Your task to perform on an android device: What's the latest news in astrophysics? Image 0: 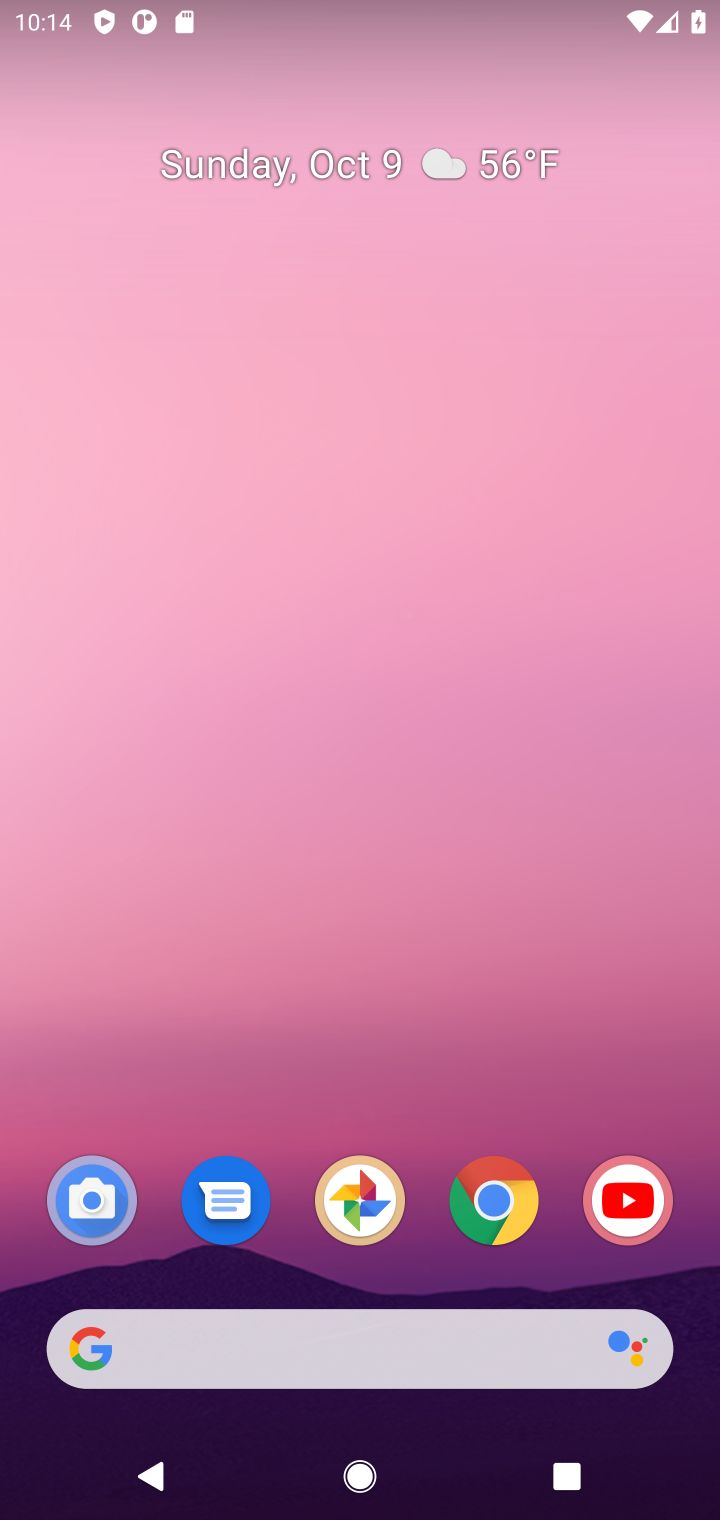
Step 0: click (463, 1195)
Your task to perform on an android device: What's the latest news in astrophysics? Image 1: 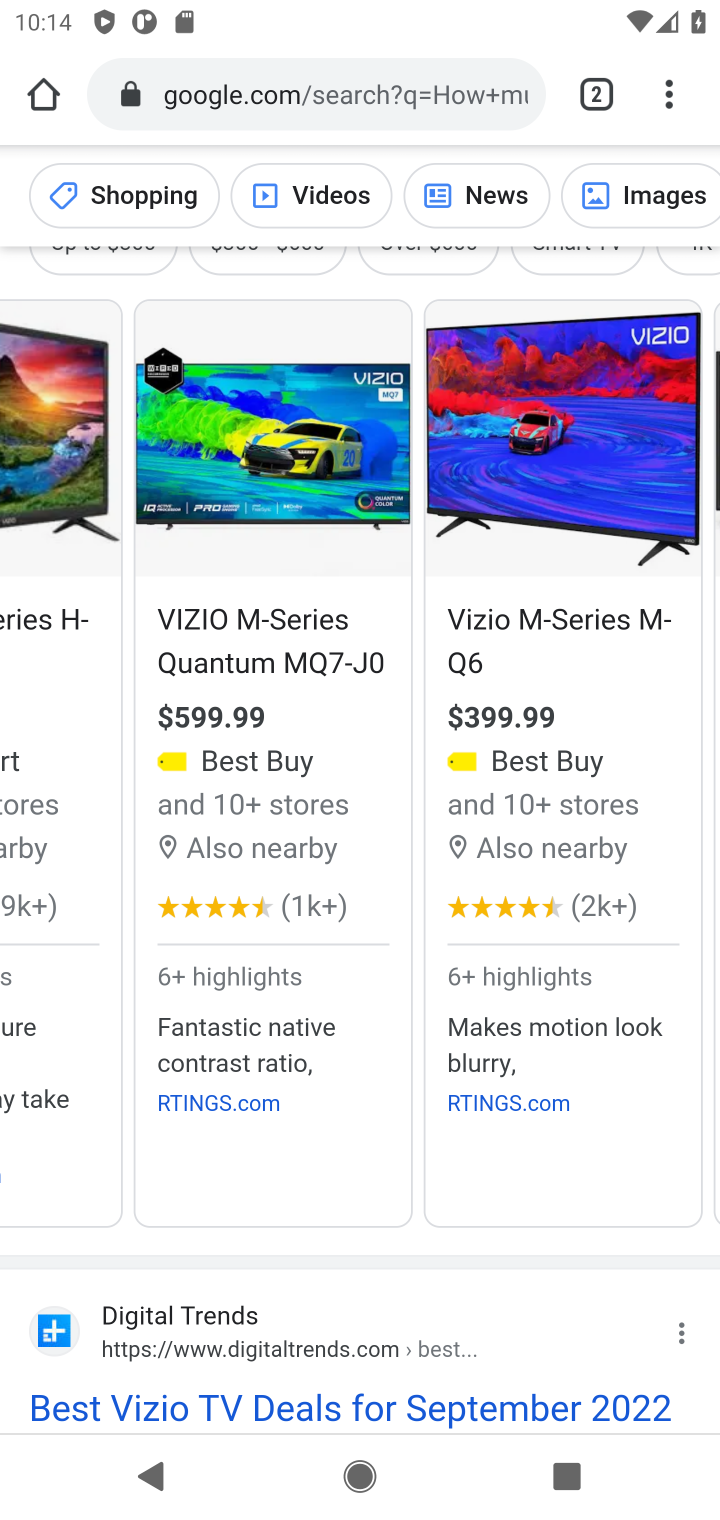
Step 1: click (322, 113)
Your task to perform on an android device: What's the latest news in astrophysics? Image 2: 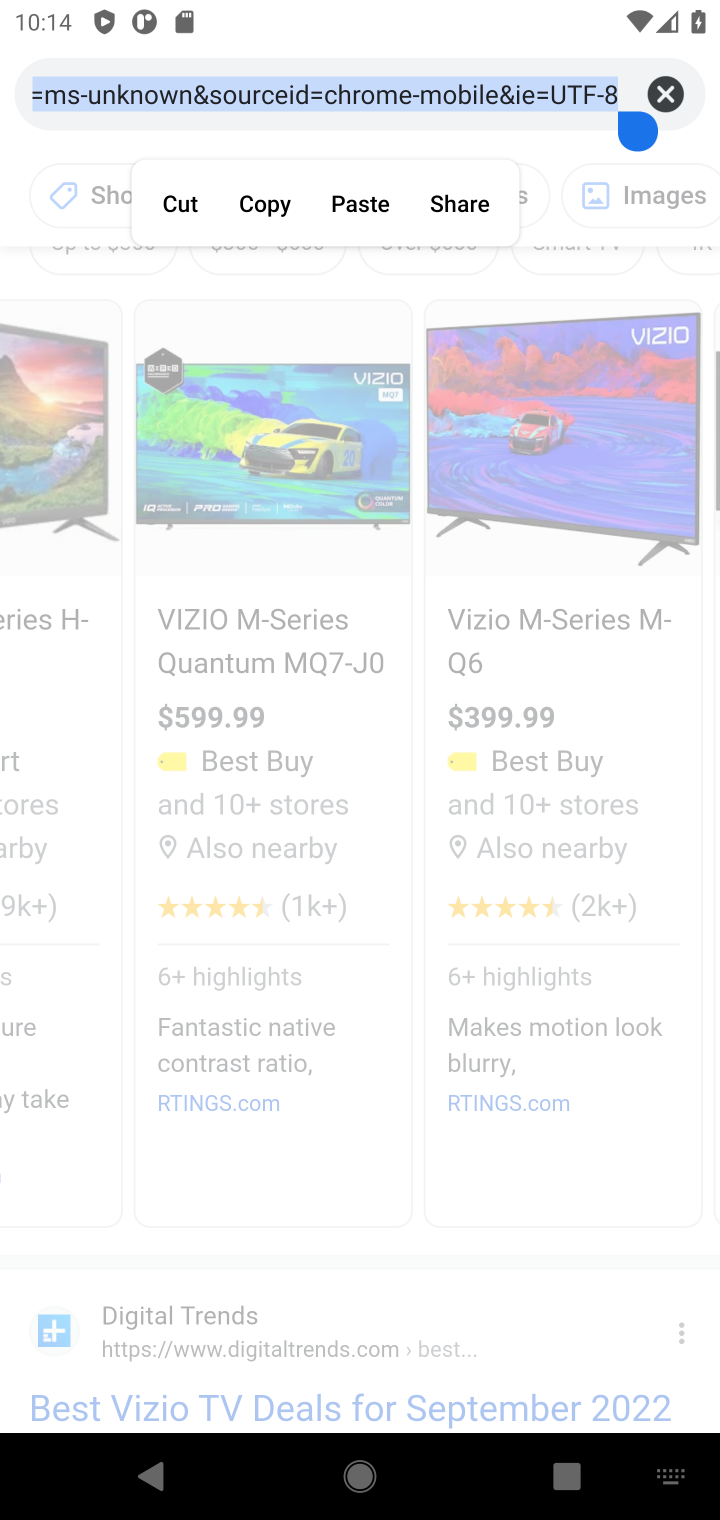
Step 2: type "latest news in astrophysics"
Your task to perform on an android device: What's the latest news in astrophysics? Image 3: 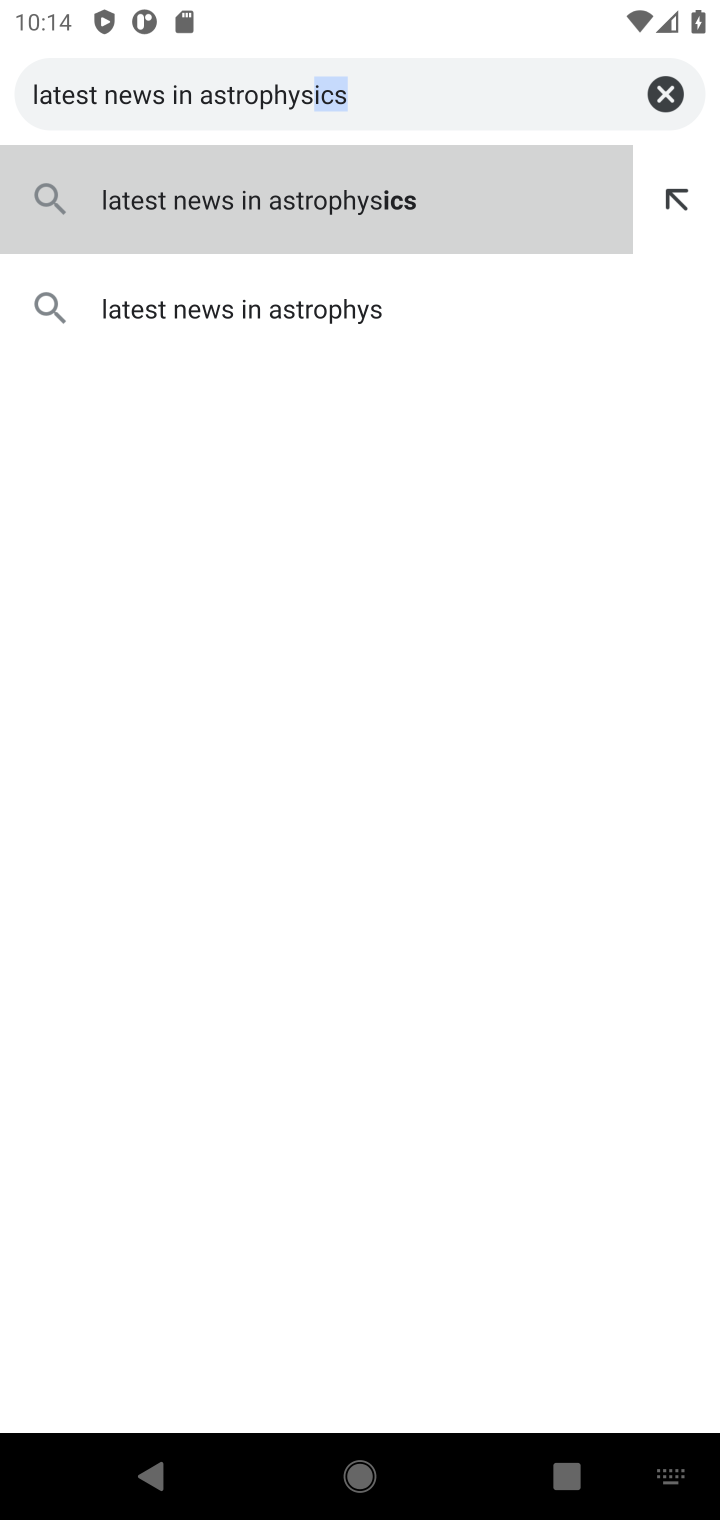
Step 3: click (502, 221)
Your task to perform on an android device: What's the latest news in astrophysics? Image 4: 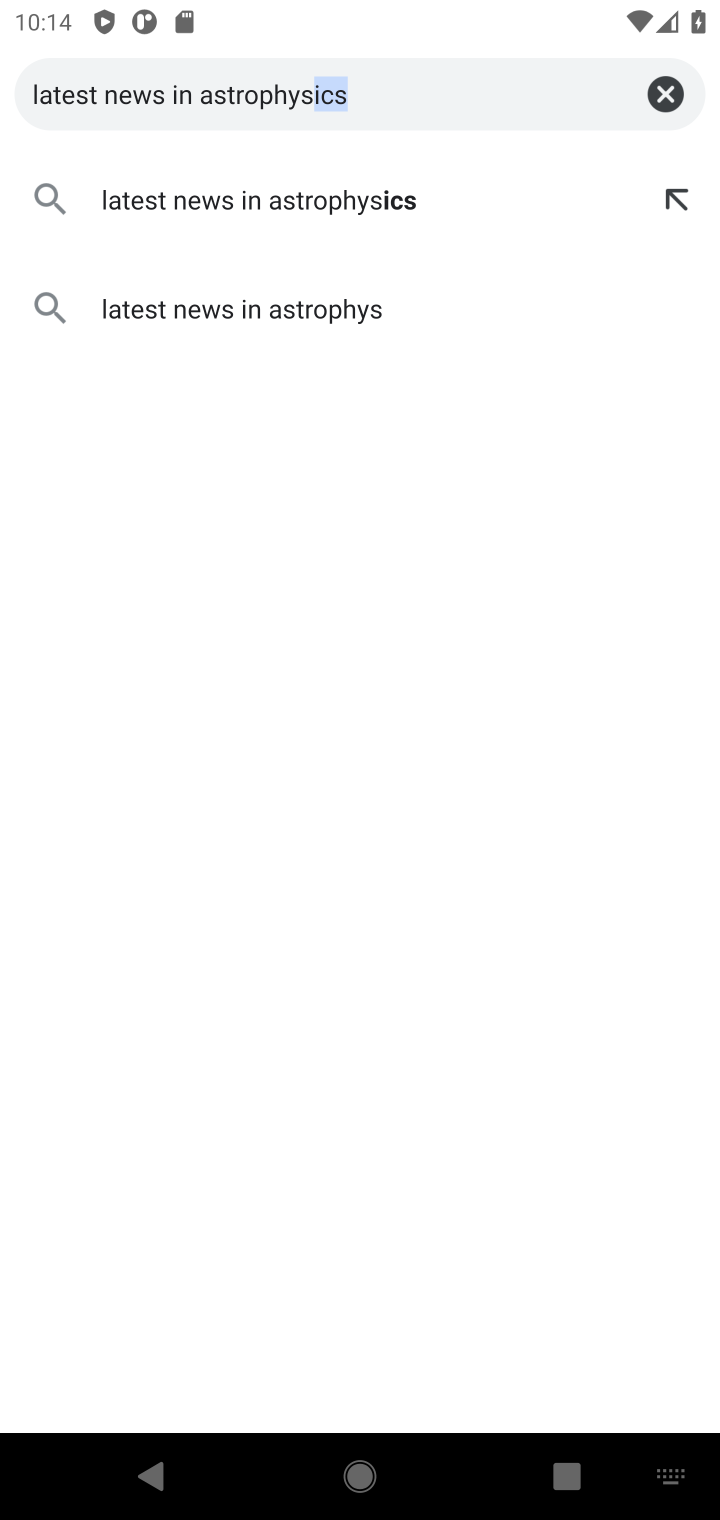
Step 4: click (400, 208)
Your task to perform on an android device: What's the latest news in astrophysics? Image 5: 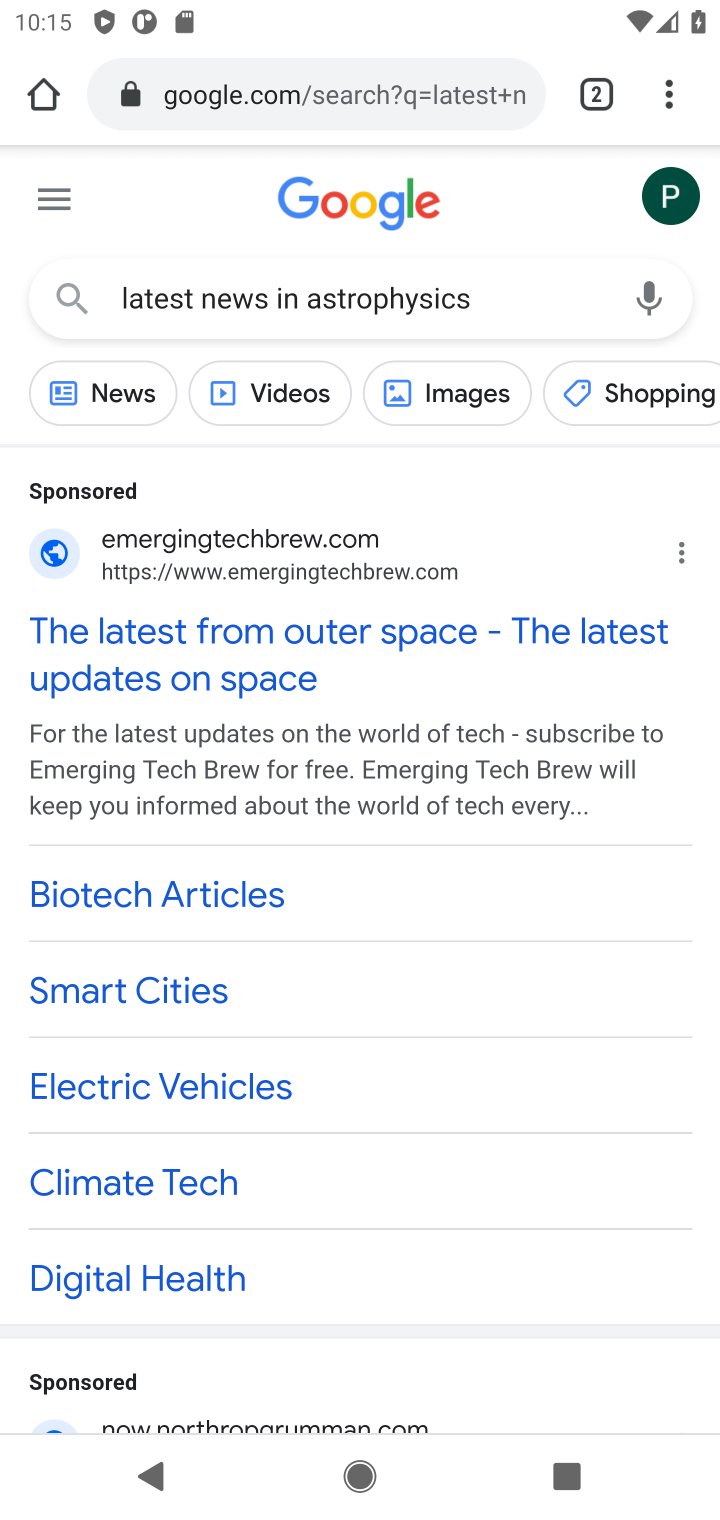
Step 5: click (83, 391)
Your task to perform on an android device: What's the latest news in astrophysics? Image 6: 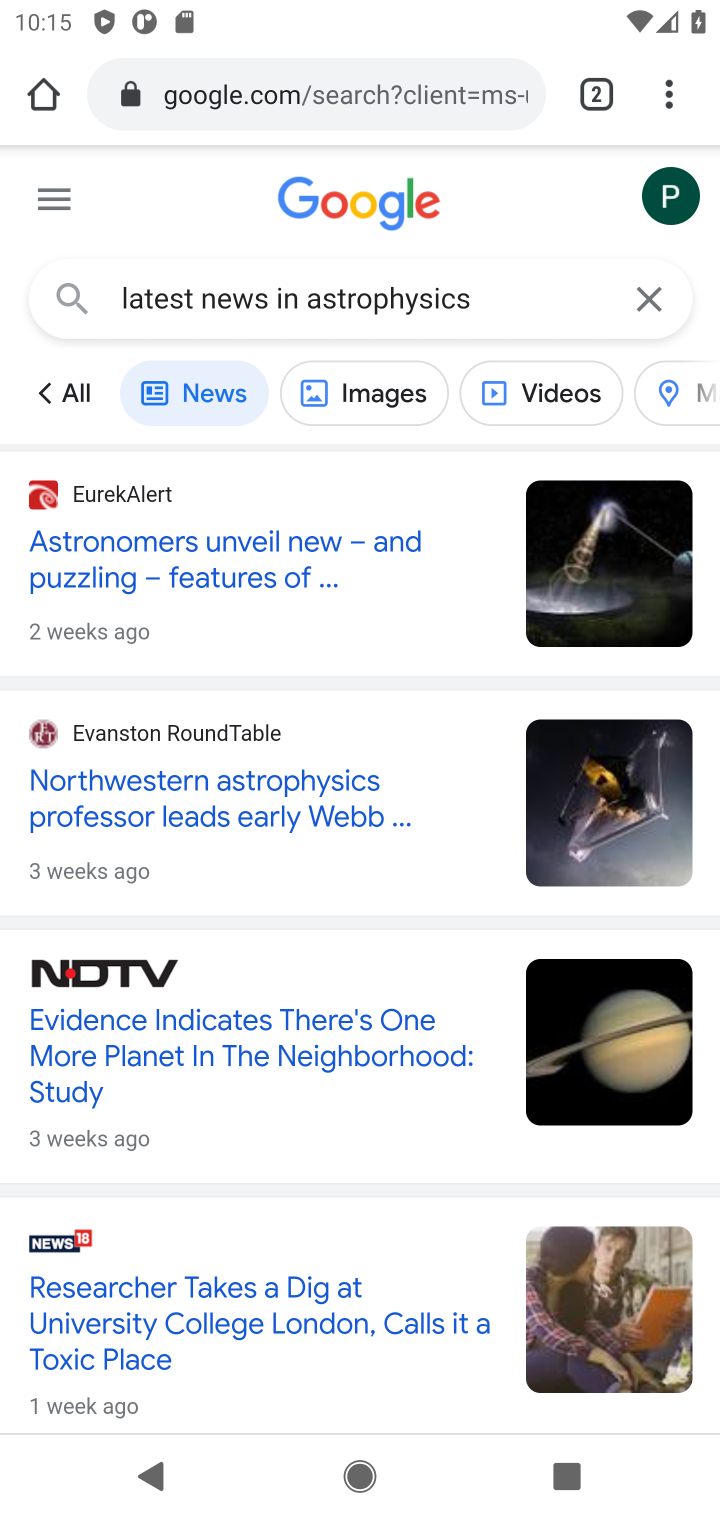
Step 6: task complete